Your task to perform on an android device: open chrome privacy settings Image 0: 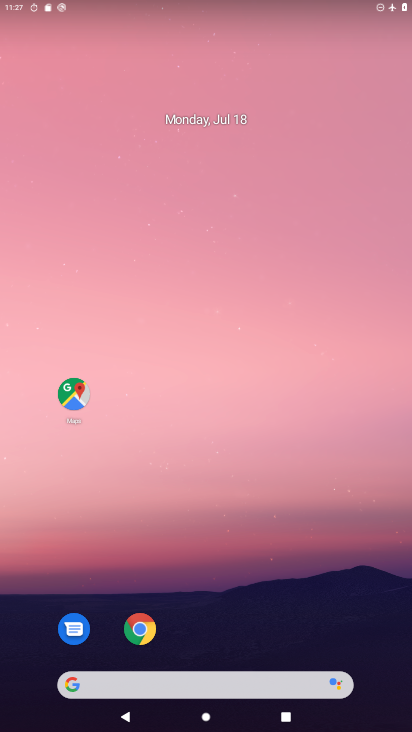
Step 0: drag from (307, 624) to (238, 82)
Your task to perform on an android device: open chrome privacy settings Image 1: 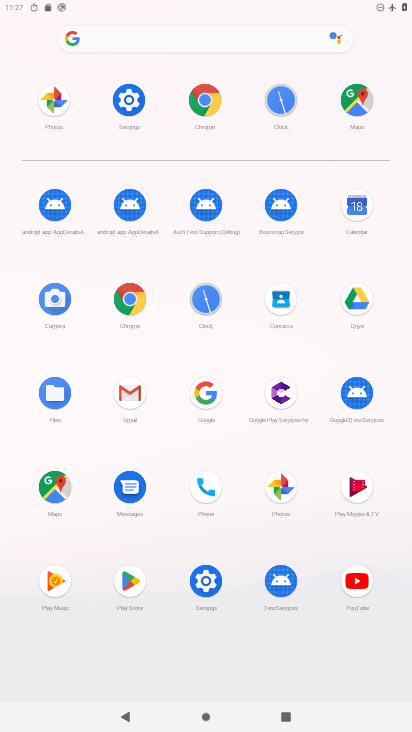
Step 1: click (130, 299)
Your task to perform on an android device: open chrome privacy settings Image 2: 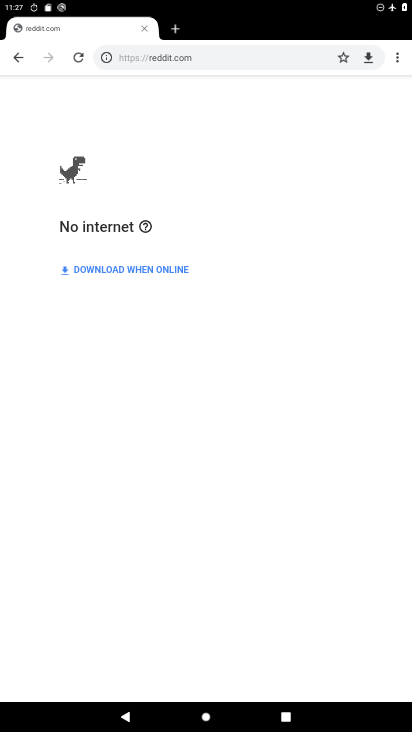
Step 2: drag from (405, 53) to (283, 385)
Your task to perform on an android device: open chrome privacy settings Image 3: 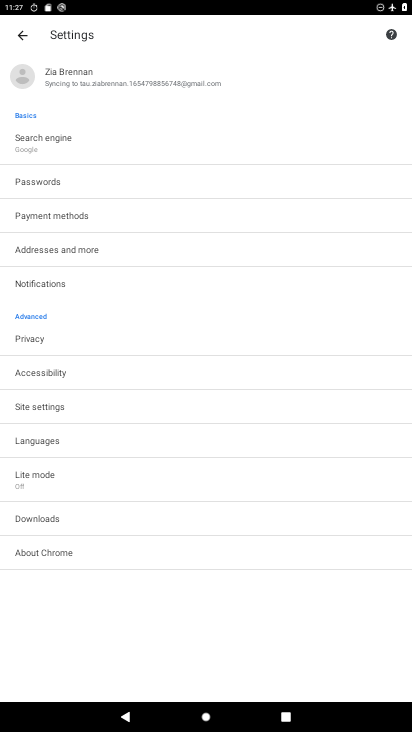
Step 3: click (35, 341)
Your task to perform on an android device: open chrome privacy settings Image 4: 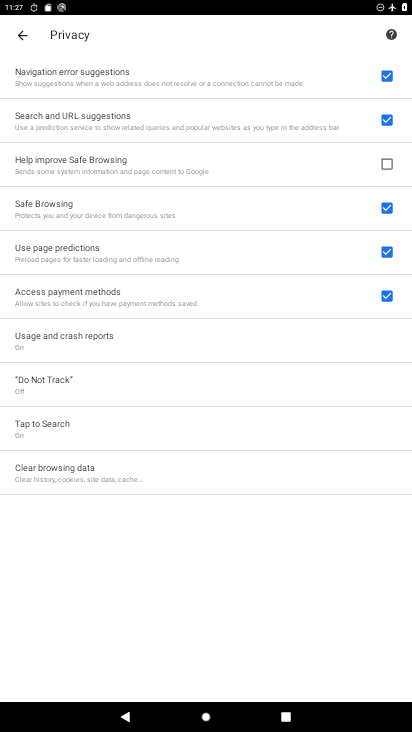
Step 4: task complete